Your task to perform on an android device: Open the web browser Image 0: 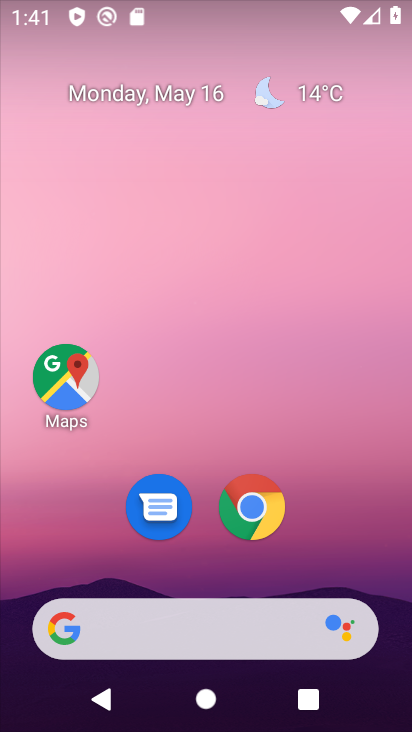
Step 0: drag from (248, 571) to (311, 49)
Your task to perform on an android device: Open the web browser Image 1: 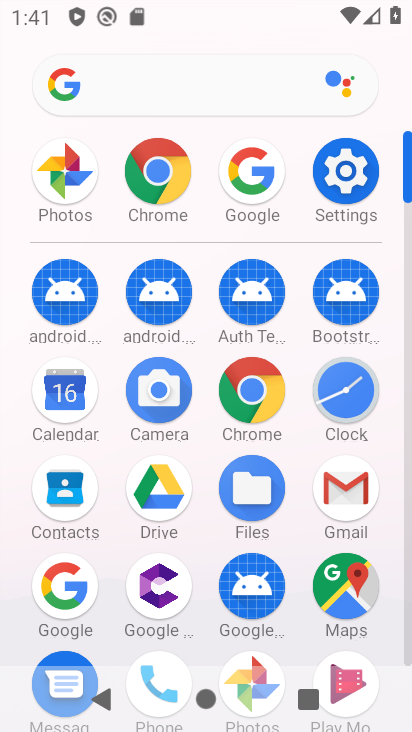
Step 1: click (76, 607)
Your task to perform on an android device: Open the web browser Image 2: 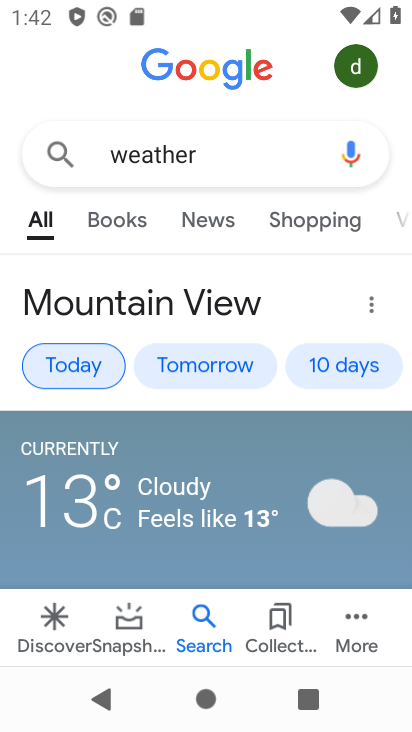
Step 2: task complete